Your task to perform on an android device: Open the Play Movies app and select the watchlist tab. Image 0: 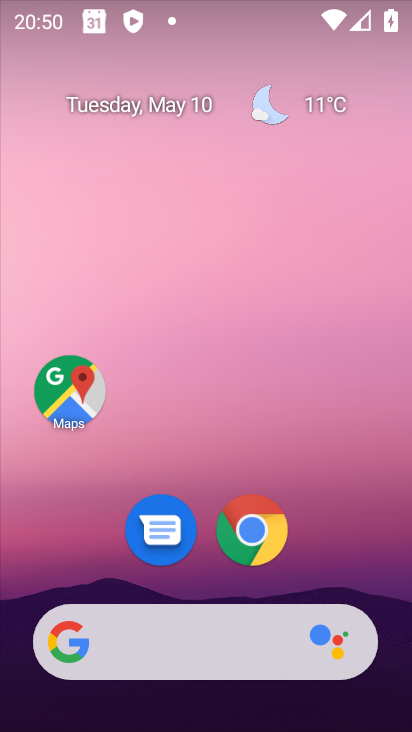
Step 0: drag from (302, 566) to (361, 204)
Your task to perform on an android device: Open the Play Movies app and select the watchlist tab. Image 1: 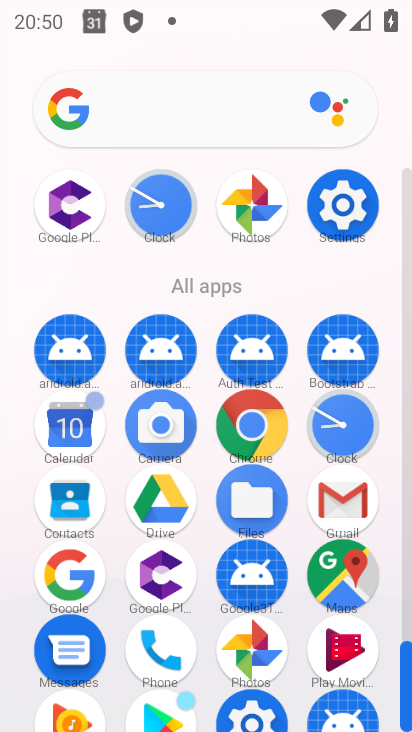
Step 1: click (336, 669)
Your task to perform on an android device: Open the Play Movies app and select the watchlist tab. Image 2: 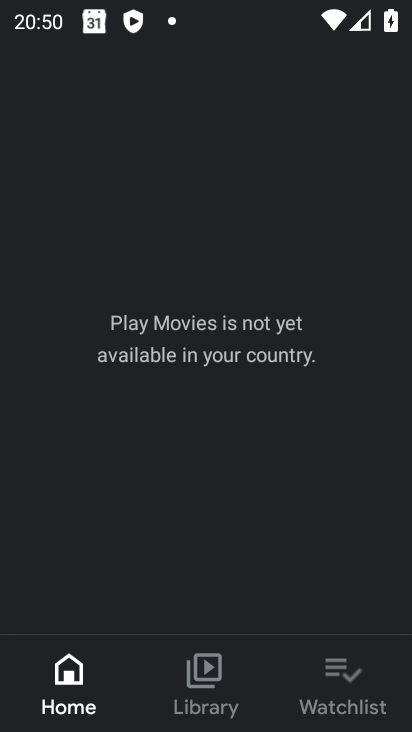
Step 2: click (326, 670)
Your task to perform on an android device: Open the Play Movies app and select the watchlist tab. Image 3: 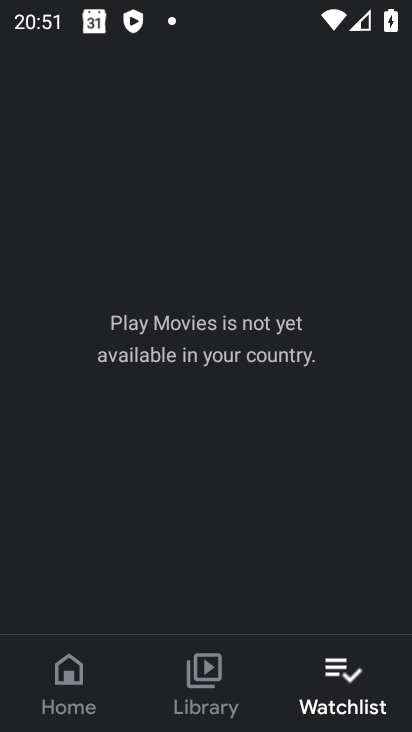
Step 3: task complete